Your task to perform on an android device: turn notification dots off Image 0: 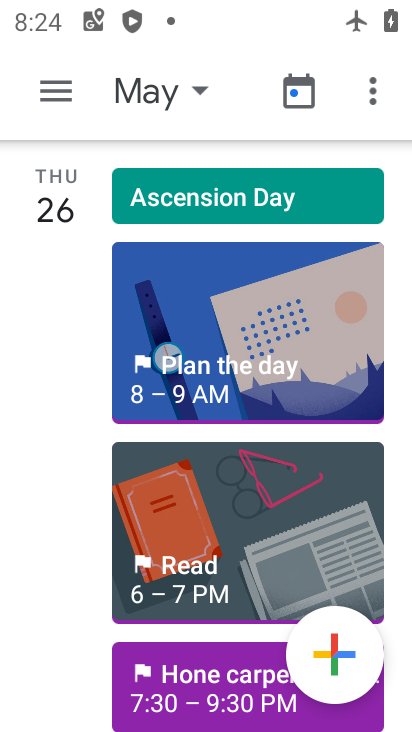
Step 0: press home button
Your task to perform on an android device: turn notification dots off Image 1: 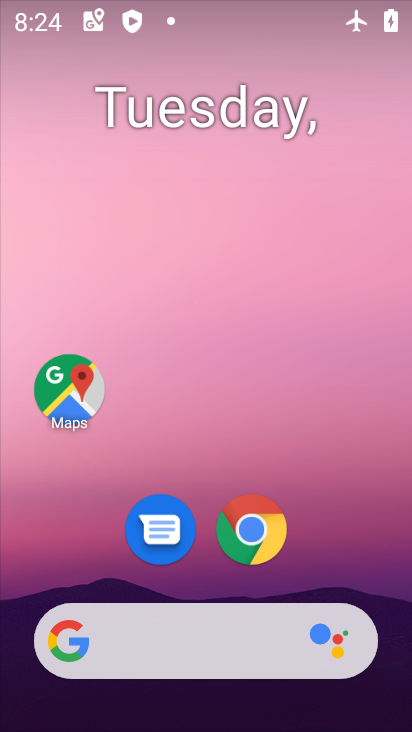
Step 1: drag from (235, 642) to (218, 157)
Your task to perform on an android device: turn notification dots off Image 2: 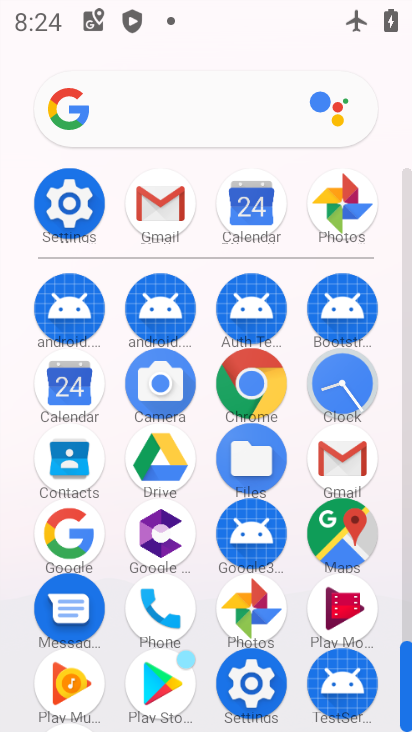
Step 2: click (48, 196)
Your task to perform on an android device: turn notification dots off Image 3: 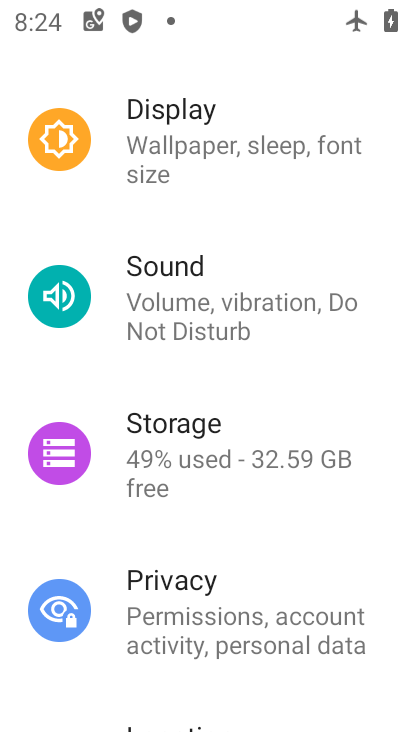
Step 3: drag from (175, 314) to (187, 650)
Your task to perform on an android device: turn notification dots off Image 4: 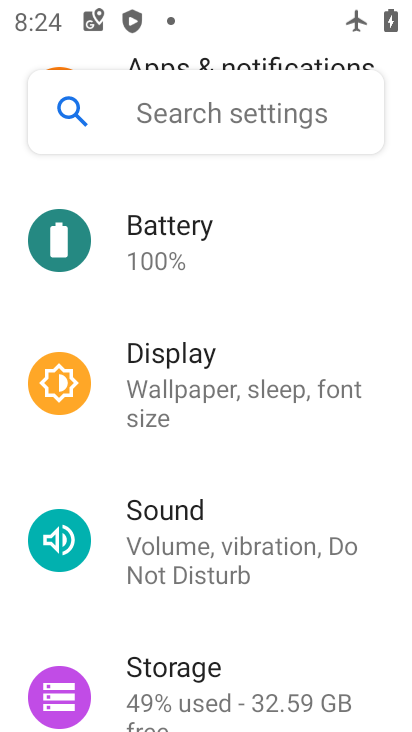
Step 4: drag from (189, 333) to (238, 627)
Your task to perform on an android device: turn notification dots off Image 5: 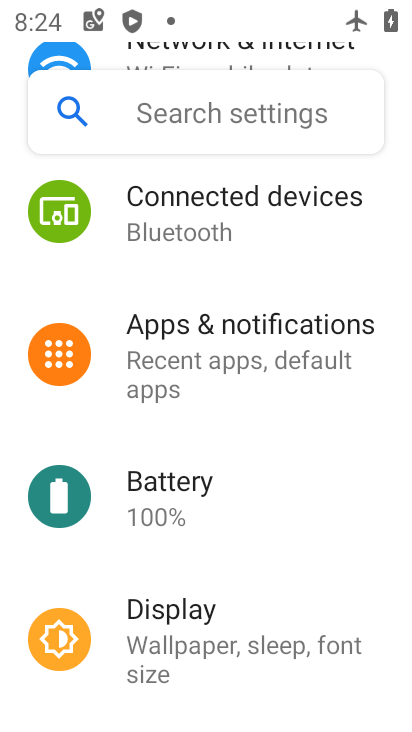
Step 5: click (247, 350)
Your task to perform on an android device: turn notification dots off Image 6: 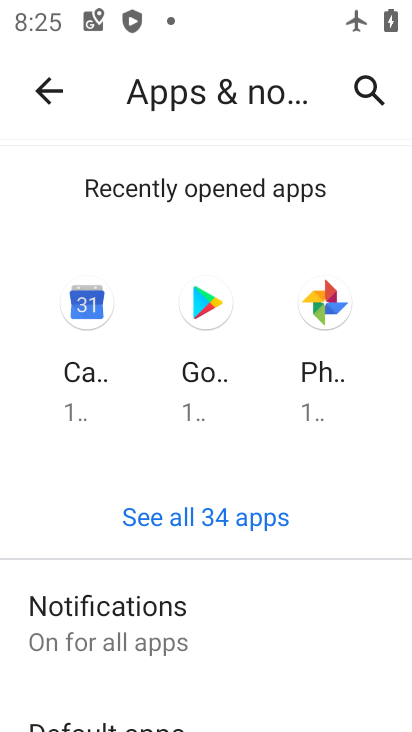
Step 6: click (185, 619)
Your task to perform on an android device: turn notification dots off Image 7: 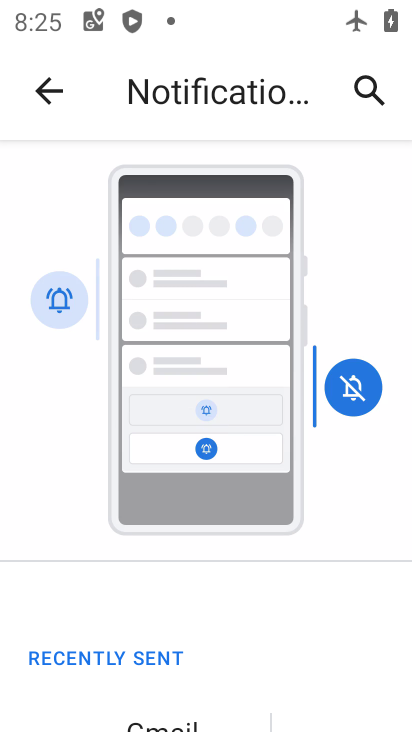
Step 7: drag from (184, 622) to (187, 99)
Your task to perform on an android device: turn notification dots off Image 8: 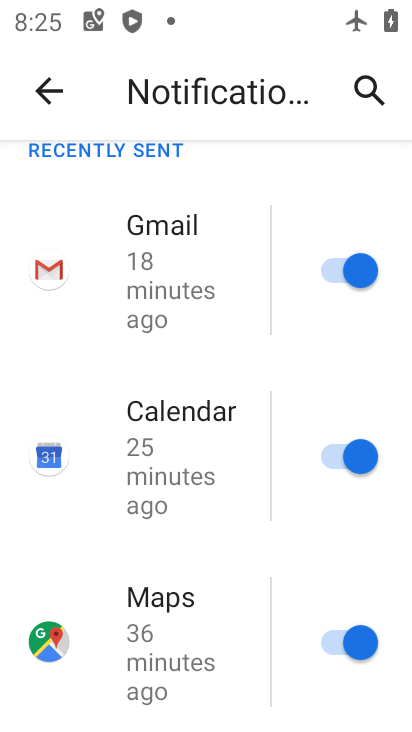
Step 8: drag from (157, 603) to (175, 67)
Your task to perform on an android device: turn notification dots off Image 9: 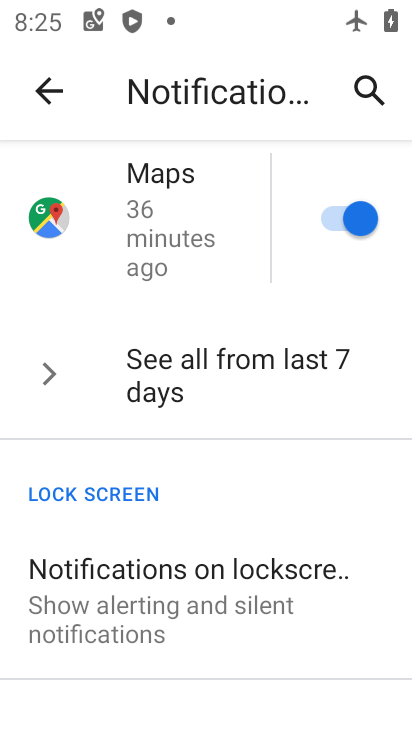
Step 9: drag from (213, 594) to (264, 164)
Your task to perform on an android device: turn notification dots off Image 10: 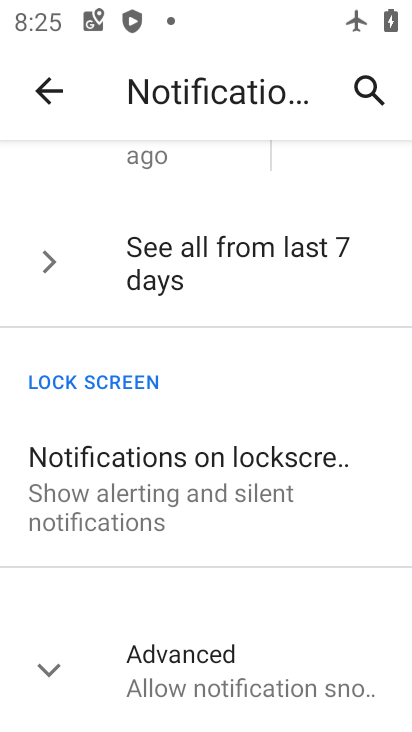
Step 10: click (252, 668)
Your task to perform on an android device: turn notification dots off Image 11: 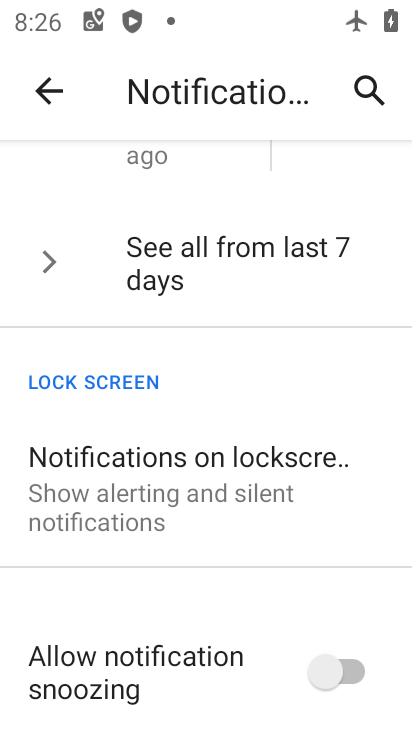
Step 11: drag from (213, 544) to (300, 46)
Your task to perform on an android device: turn notification dots off Image 12: 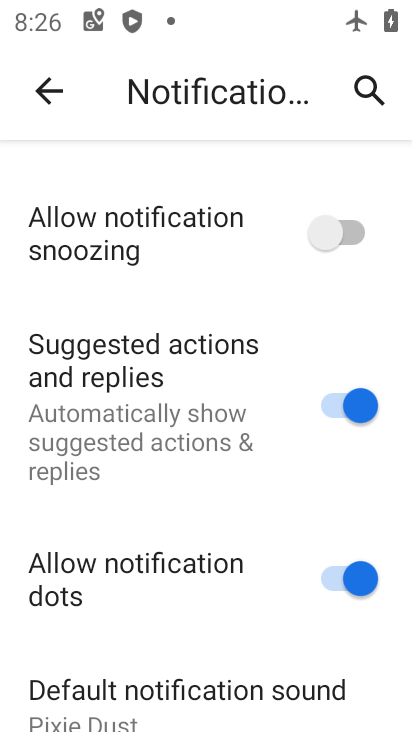
Step 12: click (330, 602)
Your task to perform on an android device: turn notification dots off Image 13: 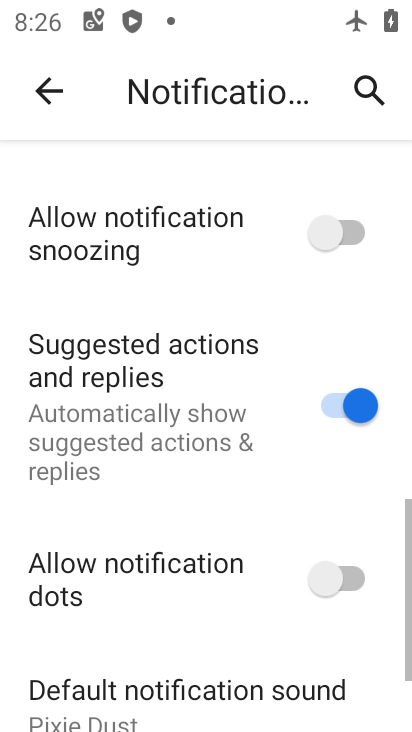
Step 13: task complete